Your task to perform on an android device: toggle translation in the chrome app Image 0: 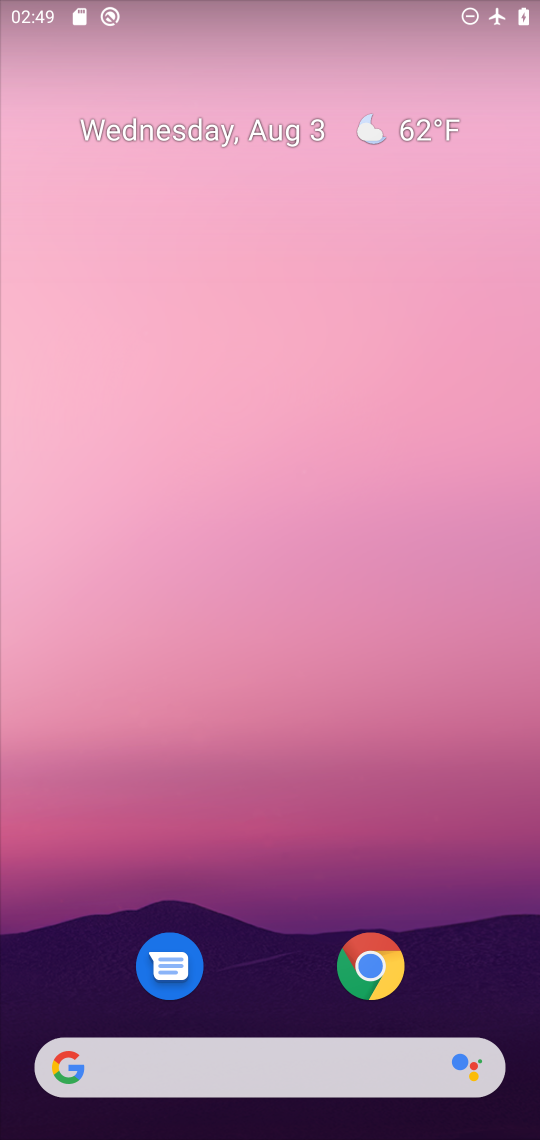
Step 0: click (359, 976)
Your task to perform on an android device: toggle translation in the chrome app Image 1: 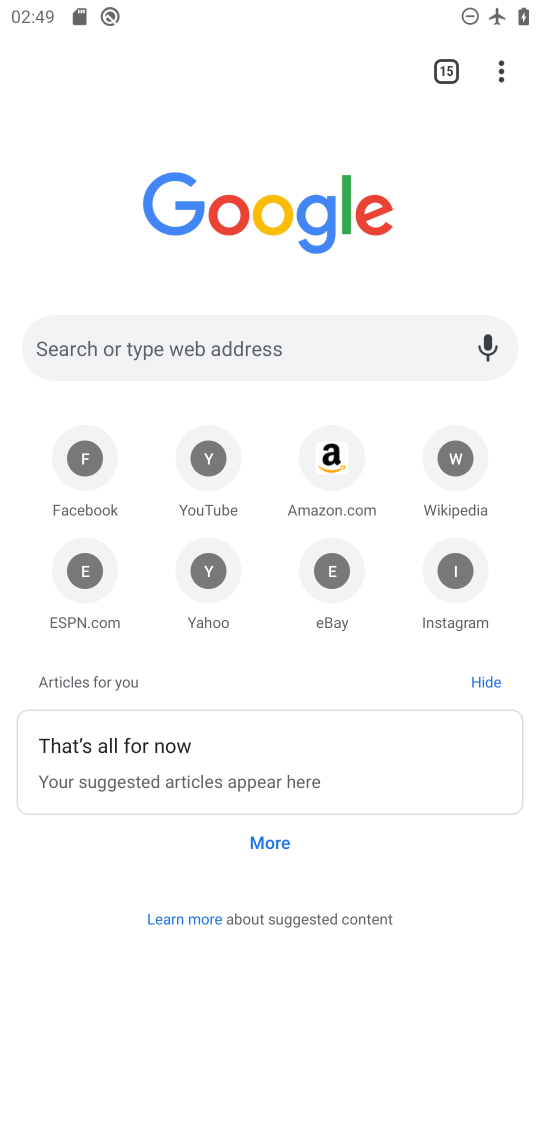
Step 1: click (499, 76)
Your task to perform on an android device: toggle translation in the chrome app Image 2: 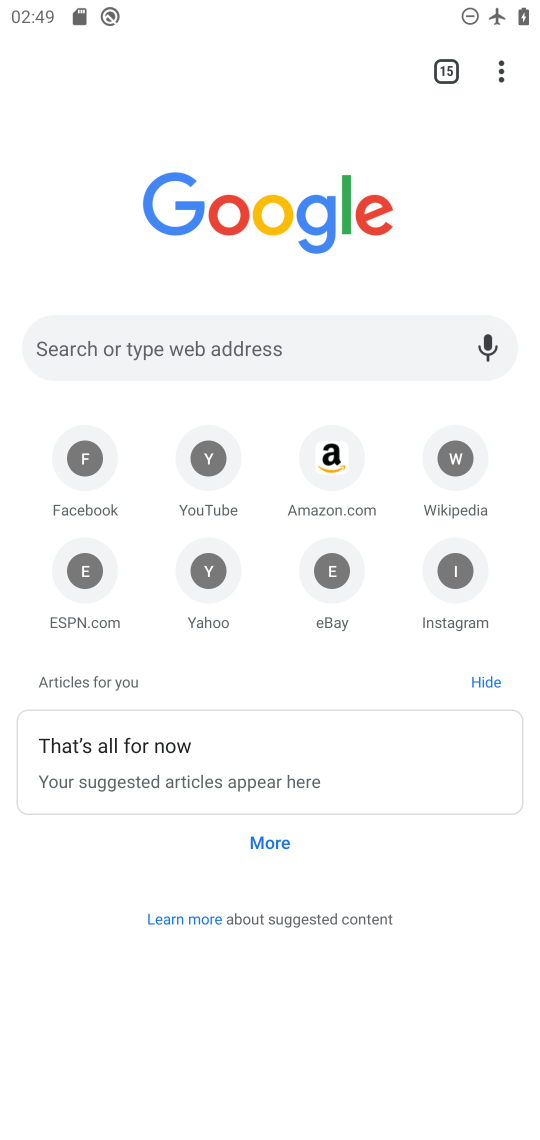
Step 2: click (499, 76)
Your task to perform on an android device: toggle translation in the chrome app Image 3: 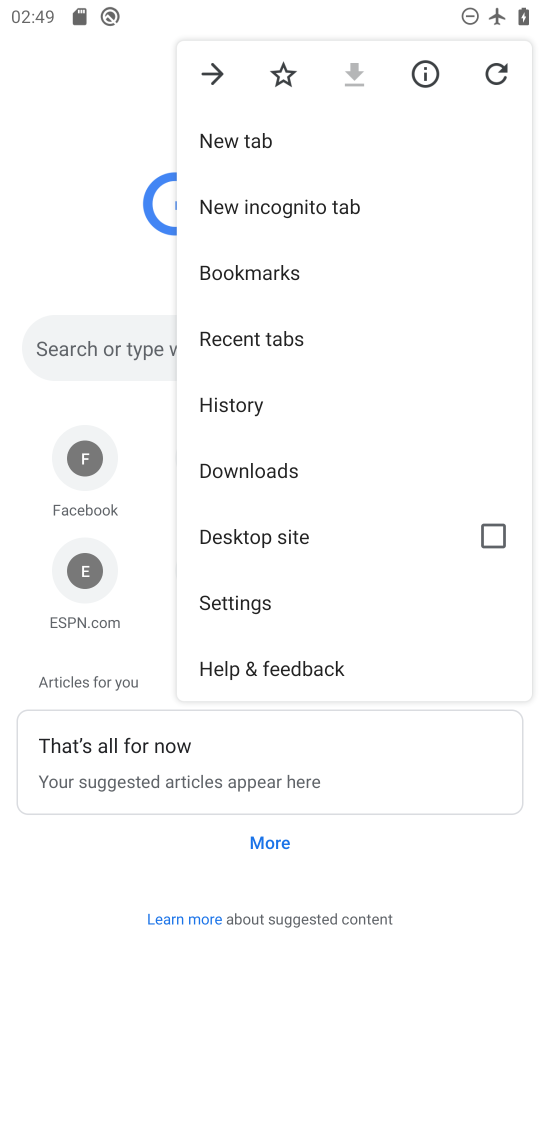
Step 3: click (269, 613)
Your task to perform on an android device: toggle translation in the chrome app Image 4: 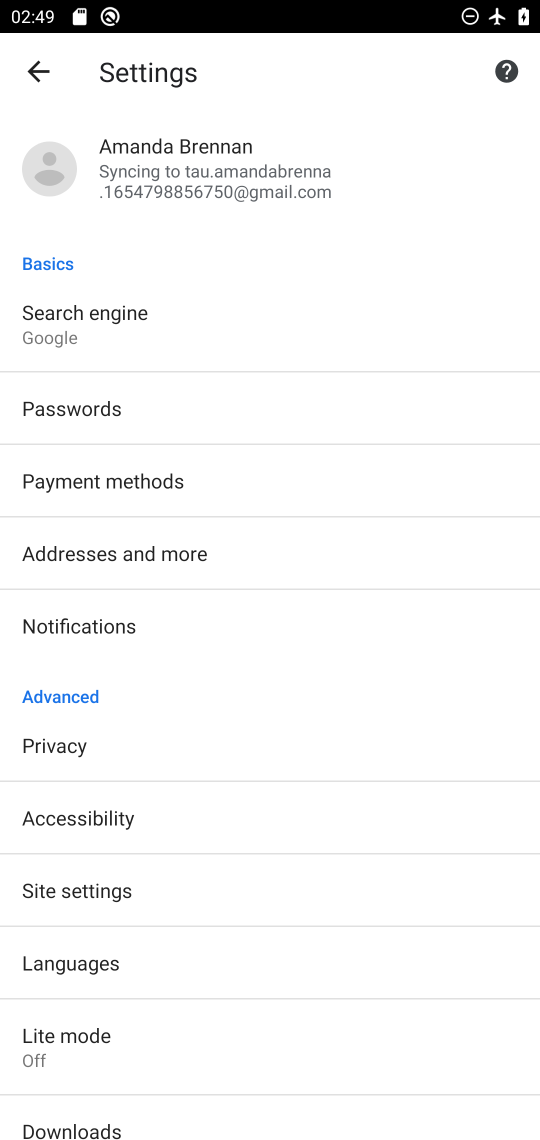
Step 4: click (152, 954)
Your task to perform on an android device: toggle translation in the chrome app Image 5: 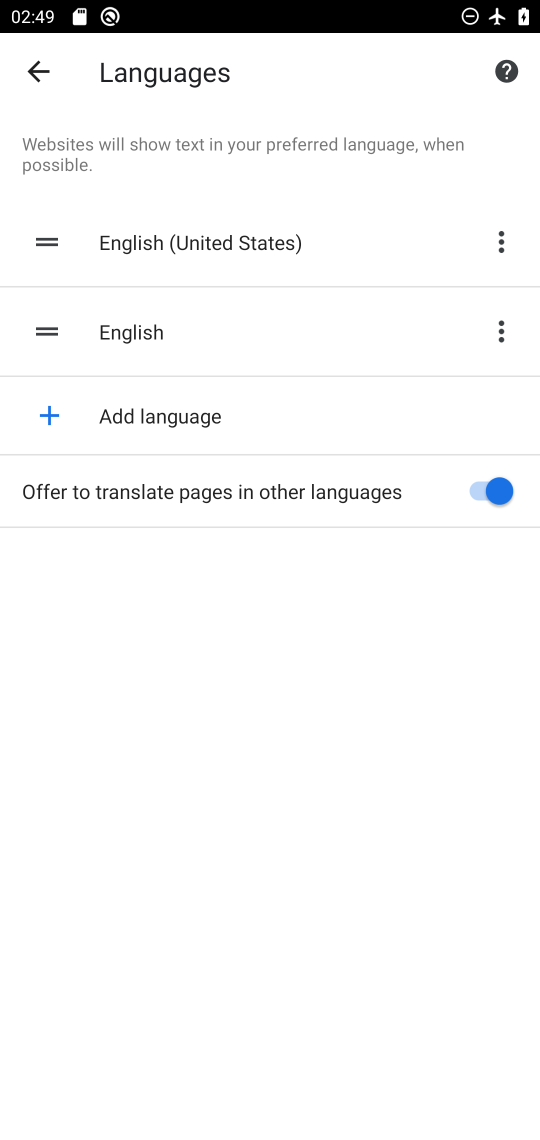
Step 5: click (487, 501)
Your task to perform on an android device: toggle translation in the chrome app Image 6: 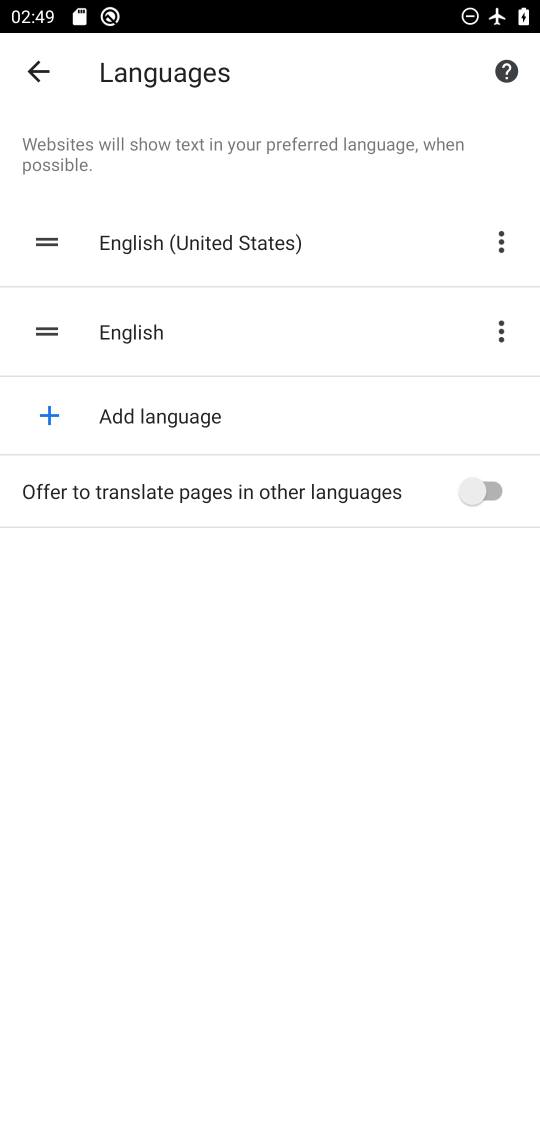
Step 6: task complete